Your task to perform on an android device: empty trash in the gmail app Image 0: 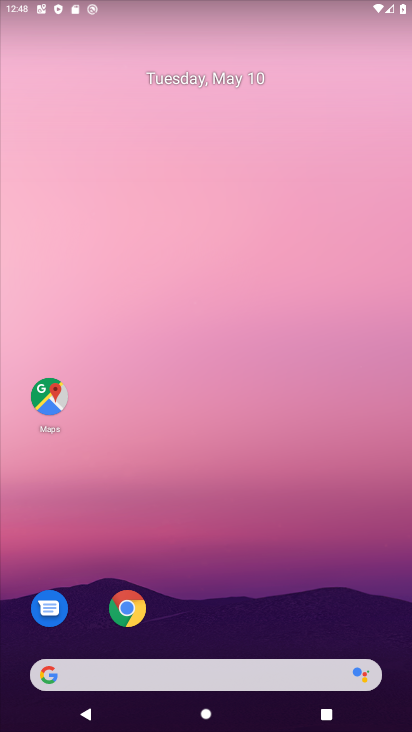
Step 0: drag from (269, 582) to (263, 224)
Your task to perform on an android device: empty trash in the gmail app Image 1: 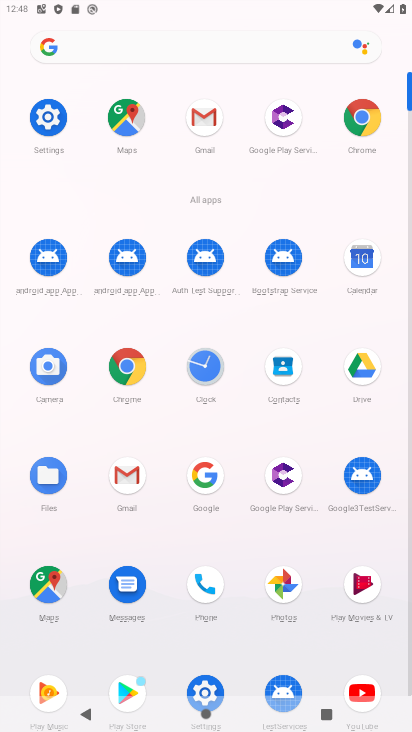
Step 1: click (132, 480)
Your task to perform on an android device: empty trash in the gmail app Image 2: 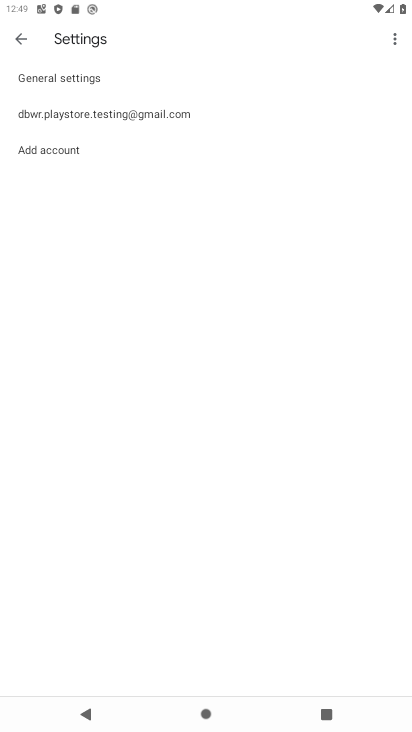
Step 2: click (20, 40)
Your task to perform on an android device: empty trash in the gmail app Image 3: 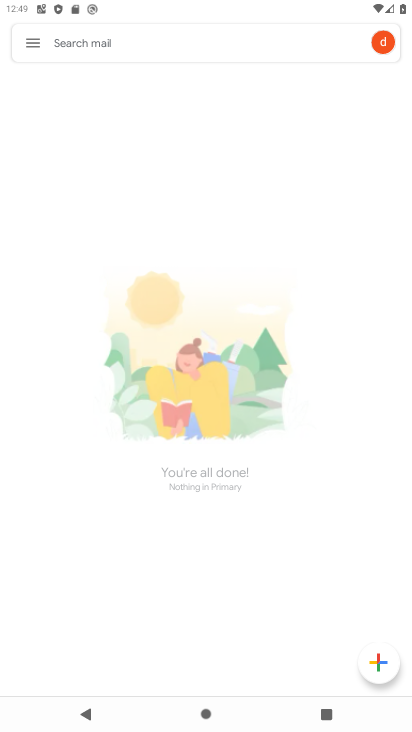
Step 3: click (36, 45)
Your task to perform on an android device: empty trash in the gmail app Image 4: 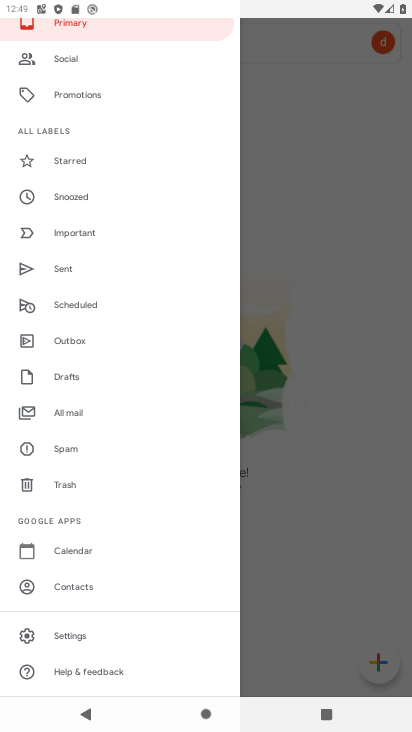
Step 4: click (80, 486)
Your task to perform on an android device: empty trash in the gmail app Image 5: 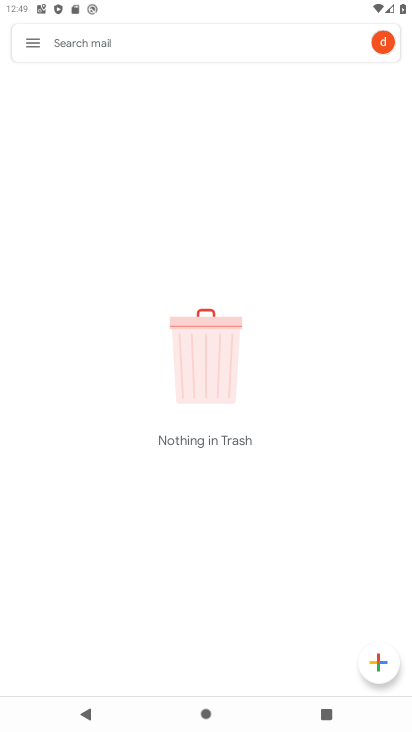
Step 5: task complete